Your task to perform on an android device: turn off improve location accuracy Image 0: 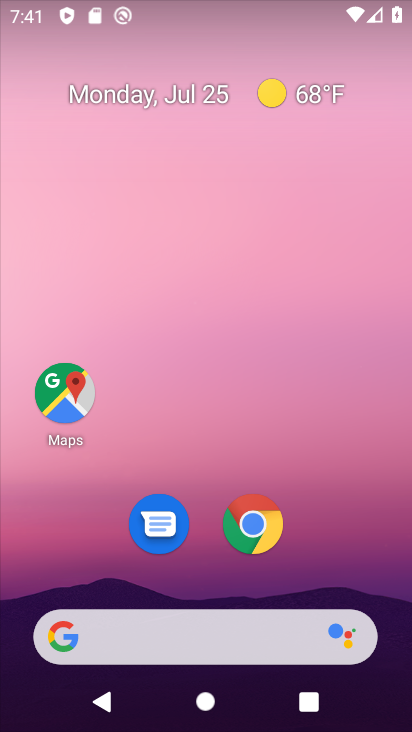
Step 0: drag from (317, 555) to (260, 53)
Your task to perform on an android device: turn off improve location accuracy Image 1: 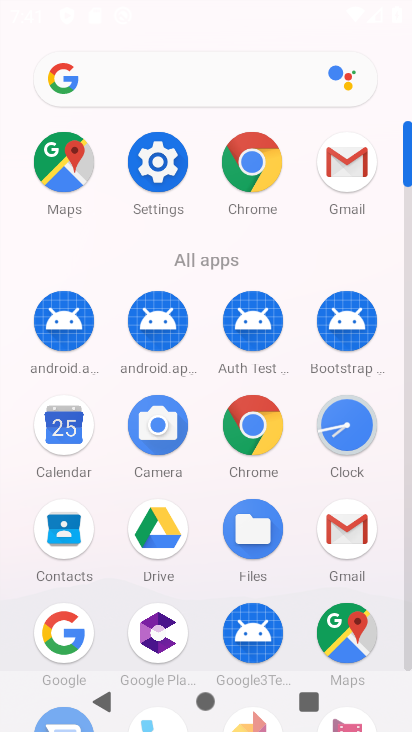
Step 1: click (157, 170)
Your task to perform on an android device: turn off improve location accuracy Image 2: 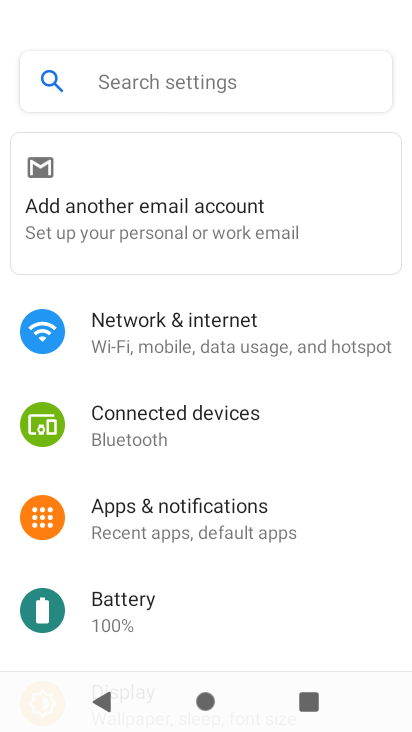
Step 2: drag from (179, 569) to (232, 61)
Your task to perform on an android device: turn off improve location accuracy Image 3: 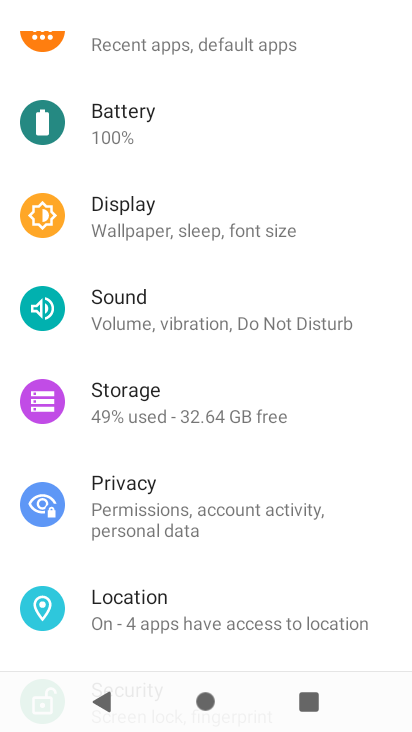
Step 3: drag from (192, 458) to (230, 71)
Your task to perform on an android device: turn off improve location accuracy Image 4: 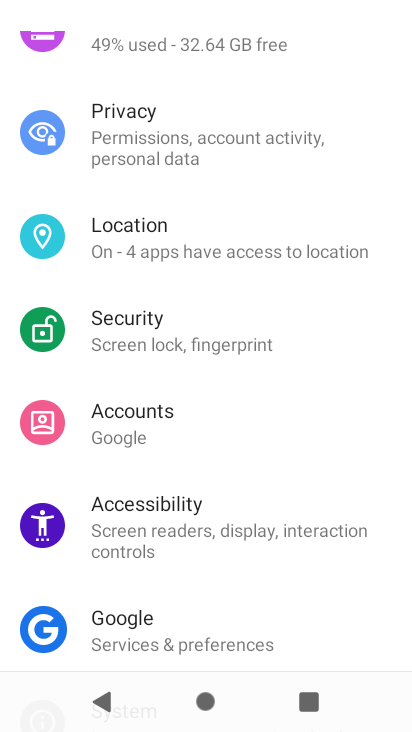
Step 4: click (198, 233)
Your task to perform on an android device: turn off improve location accuracy Image 5: 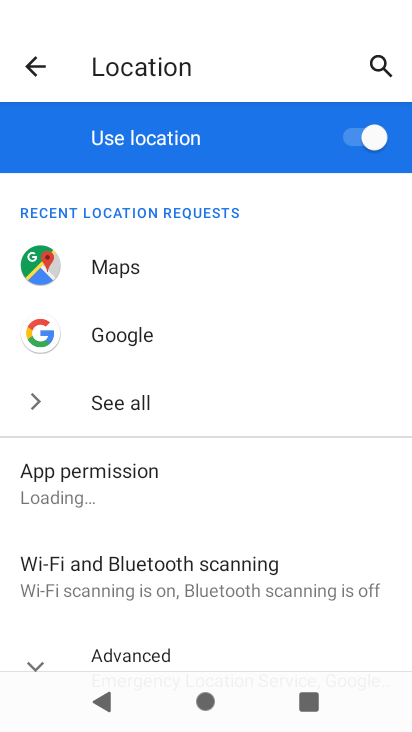
Step 5: drag from (189, 465) to (262, 170)
Your task to perform on an android device: turn off improve location accuracy Image 6: 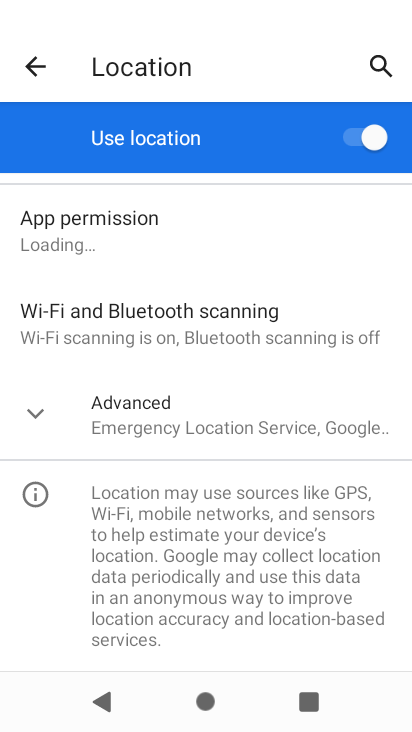
Step 6: click (34, 418)
Your task to perform on an android device: turn off improve location accuracy Image 7: 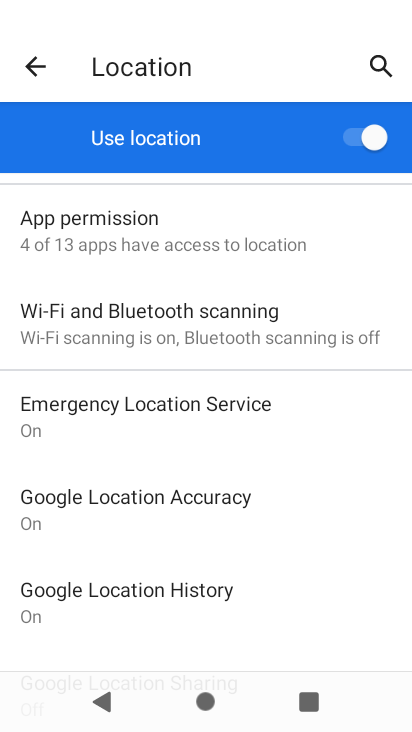
Step 7: click (118, 504)
Your task to perform on an android device: turn off improve location accuracy Image 8: 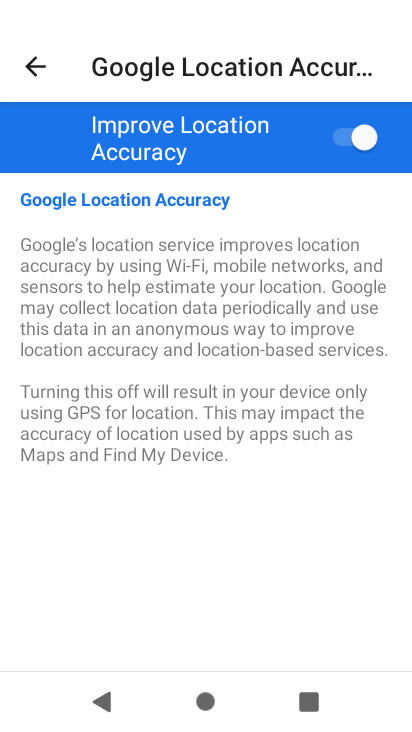
Step 8: click (352, 133)
Your task to perform on an android device: turn off improve location accuracy Image 9: 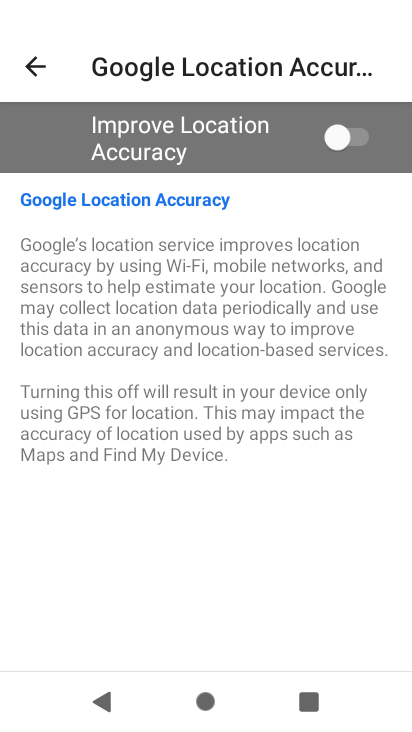
Step 9: task complete